Your task to perform on an android device: Show me the alarms in the clock app Image 0: 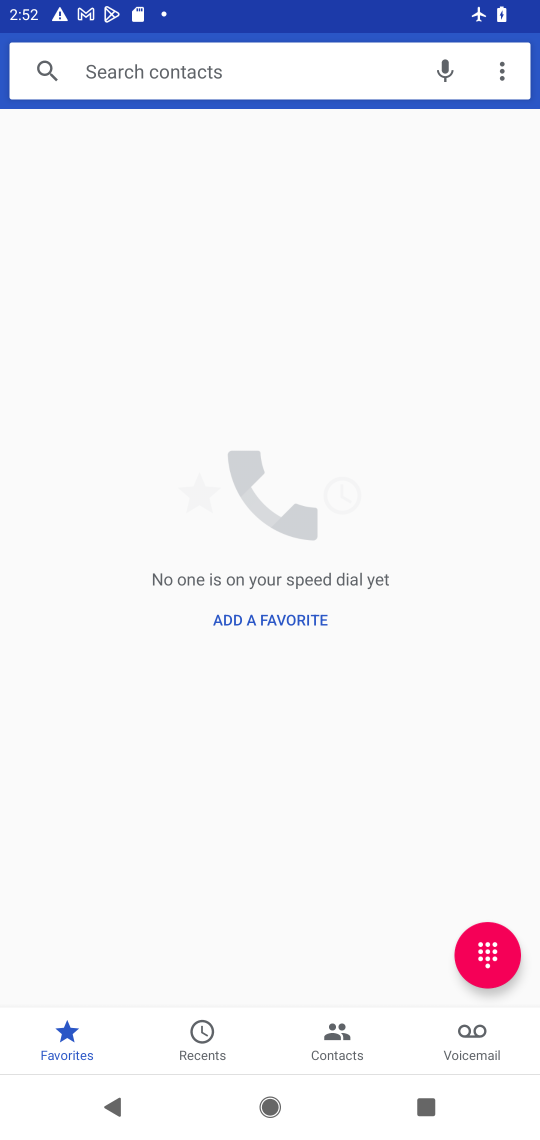
Step 0: press home button
Your task to perform on an android device: Show me the alarms in the clock app Image 1: 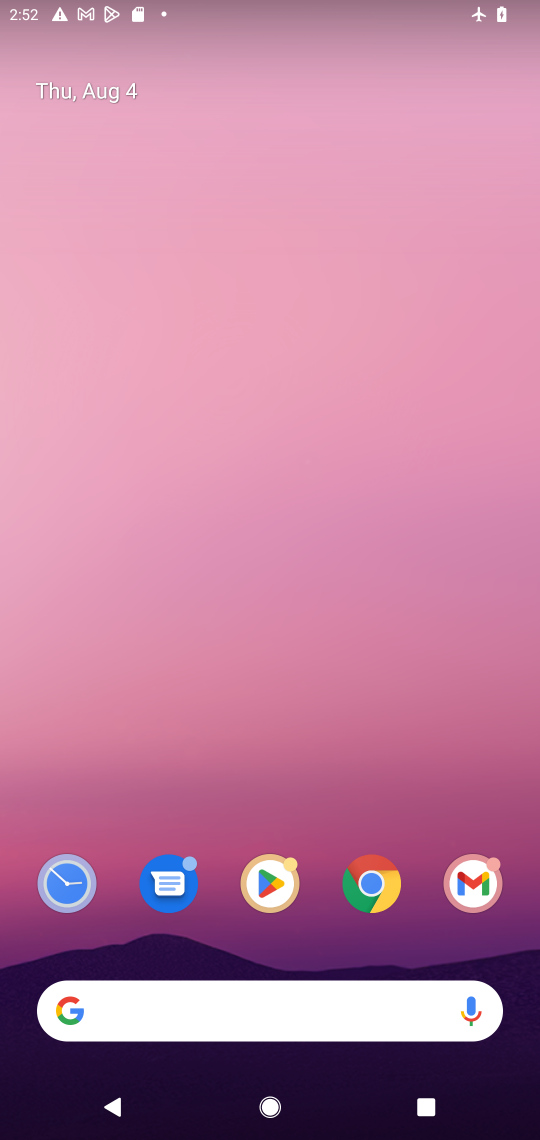
Step 1: drag from (313, 898) to (313, 30)
Your task to perform on an android device: Show me the alarms in the clock app Image 2: 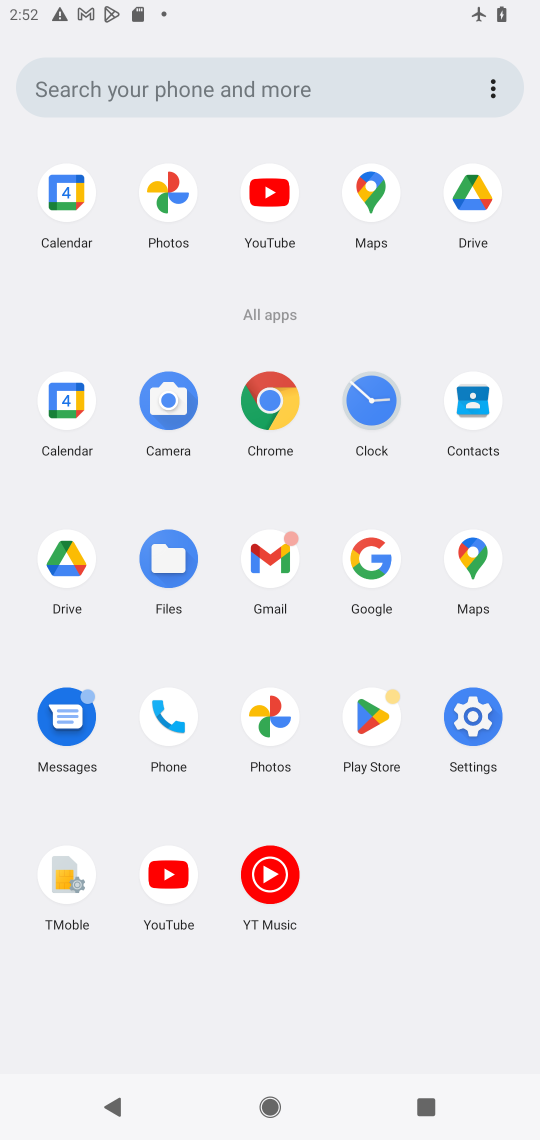
Step 2: click (366, 395)
Your task to perform on an android device: Show me the alarms in the clock app Image 3: 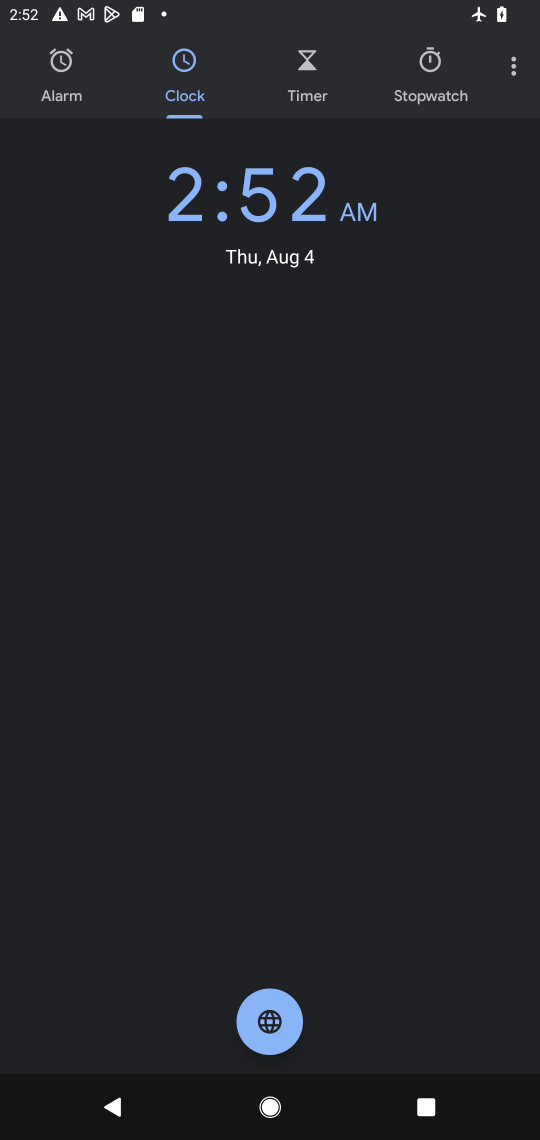
Step 3: click (57, 74)
Your task to perform on an android device: Show me the alarms in the clock app Image 4: 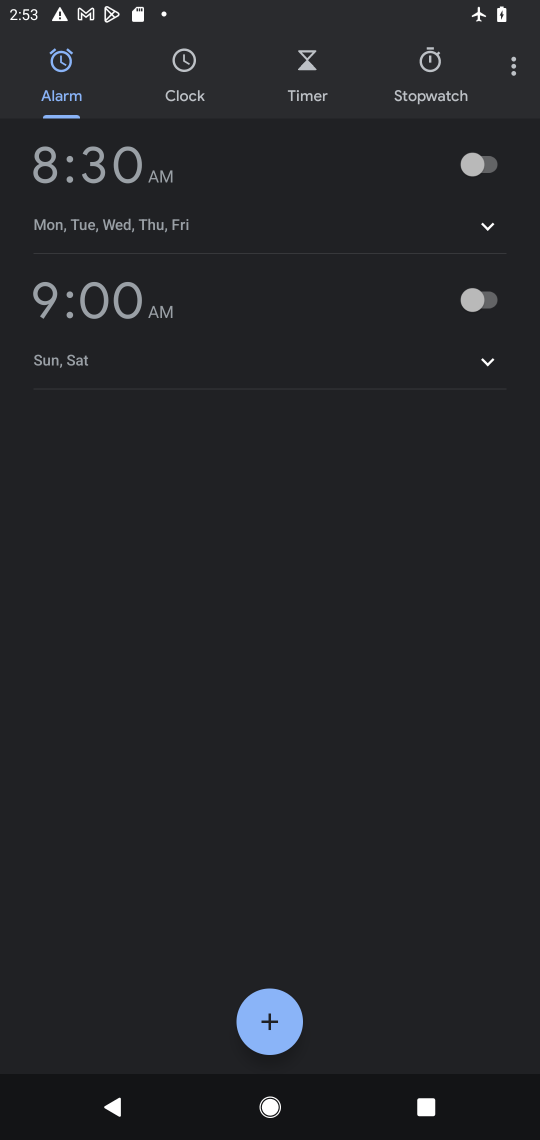
Step 4: task complete